Your task to perform on an android device: set the timer Image 0: 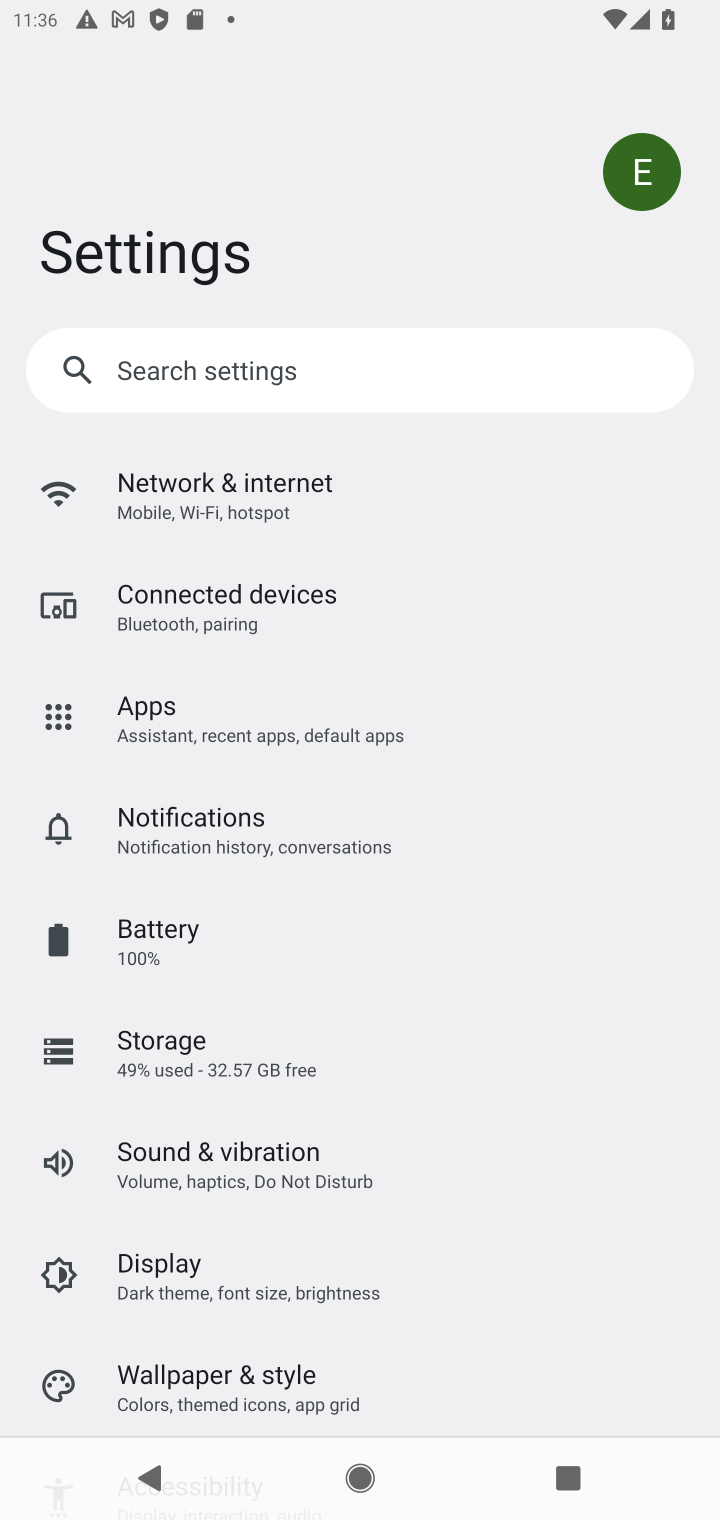
Step 0: press home button
Your task to perform on an android device: set the timer Image 1: 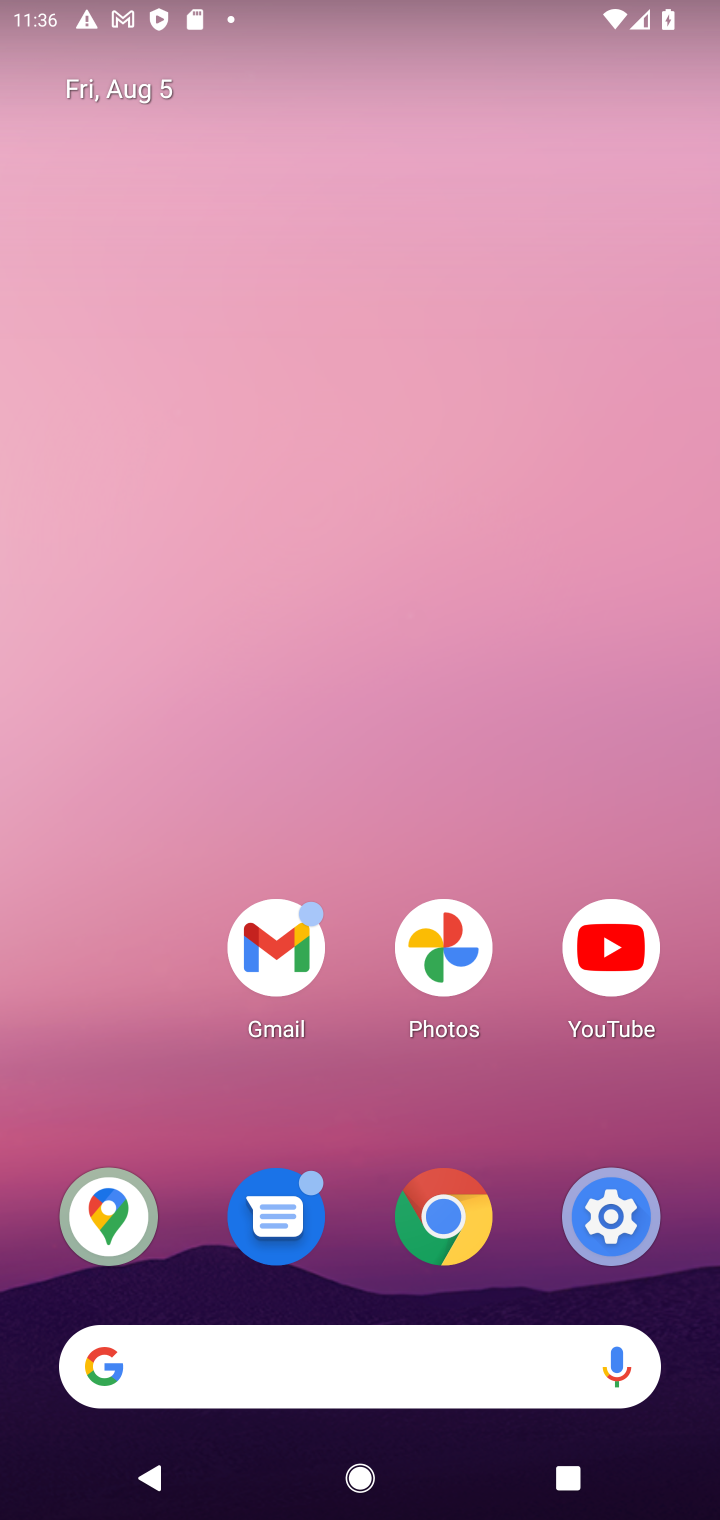
Step 1: drag from (487, 1284) to (586, 49)
Your task to perform on an android device: set the timer Image 2: 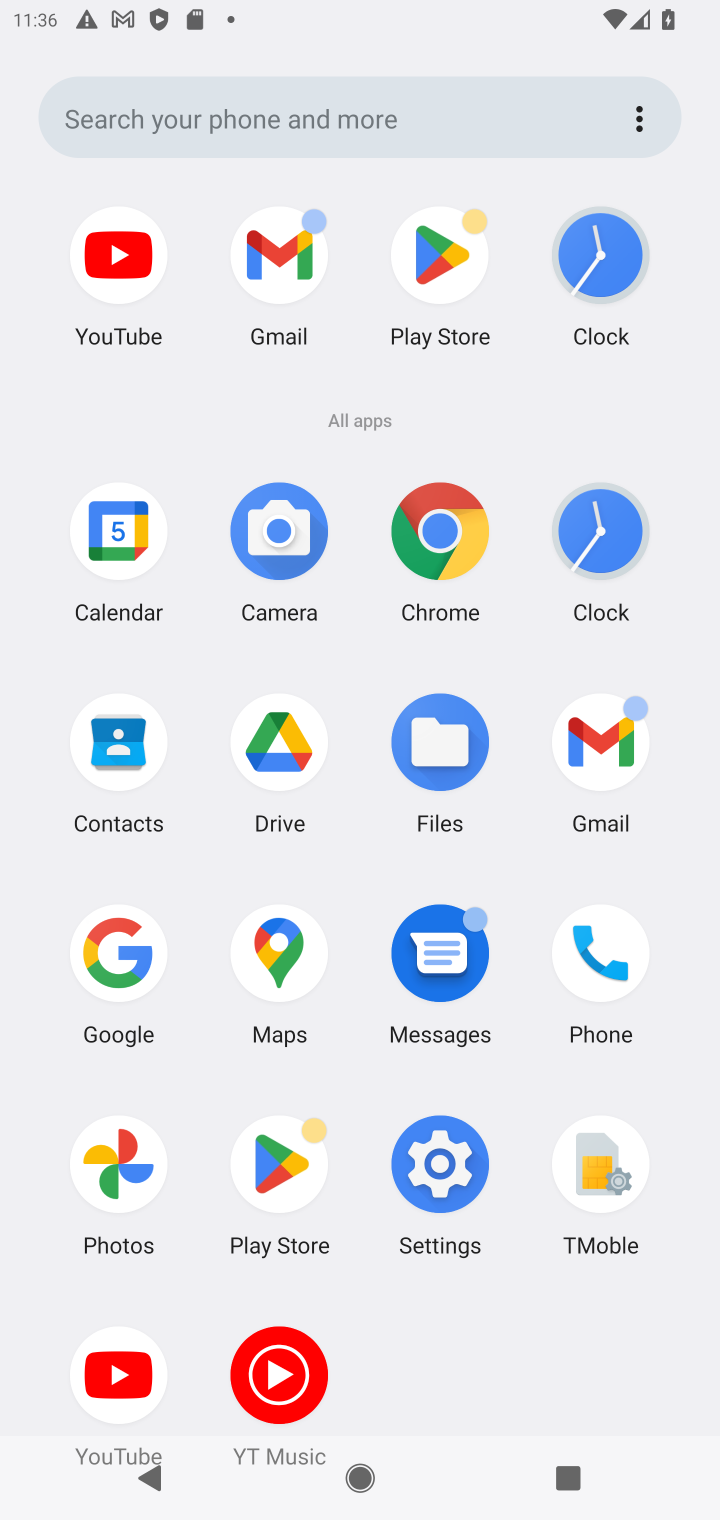
Step 2: click (618, 520)
Your task to perform on an android device: set the timer Image 3: 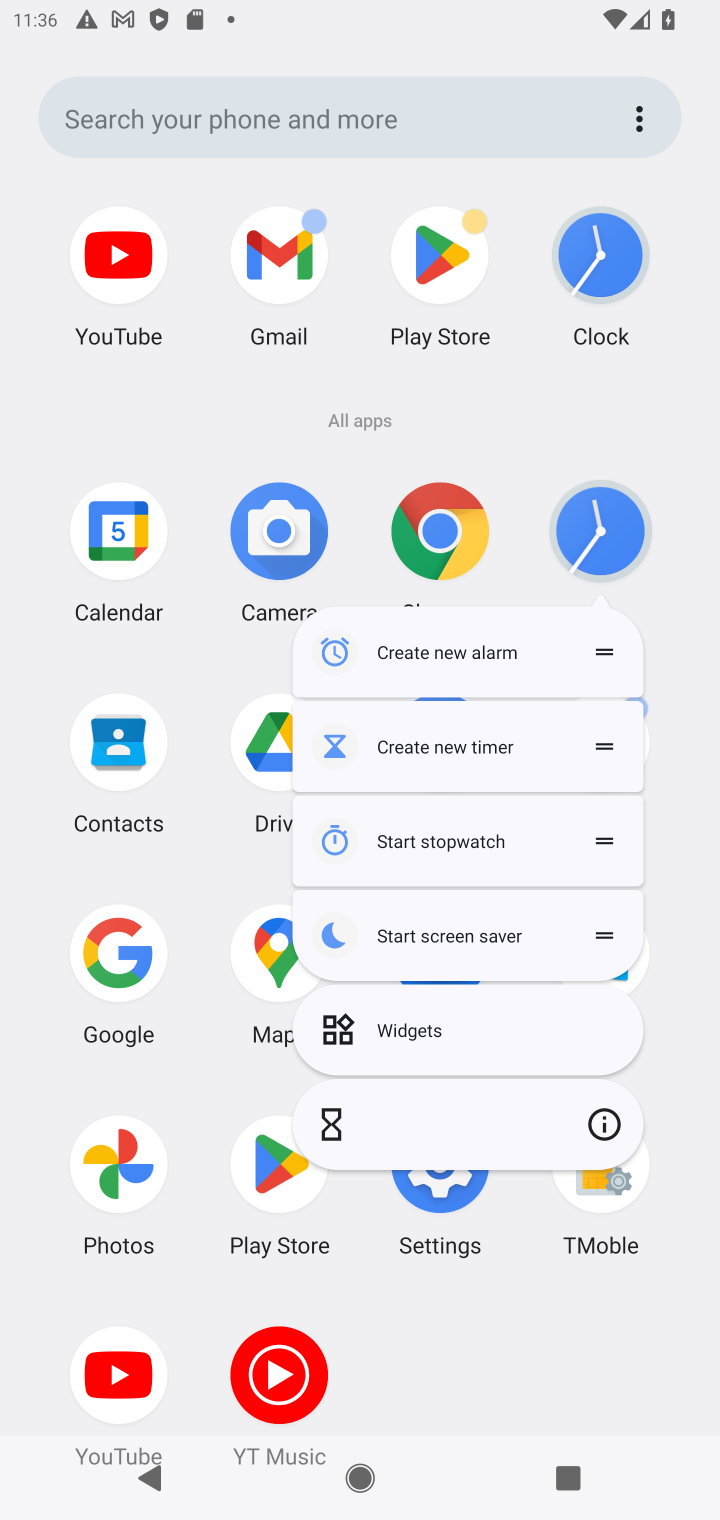
Step 3: click (618, 520)
Your task to perform on an android device: set the timer Image 4: 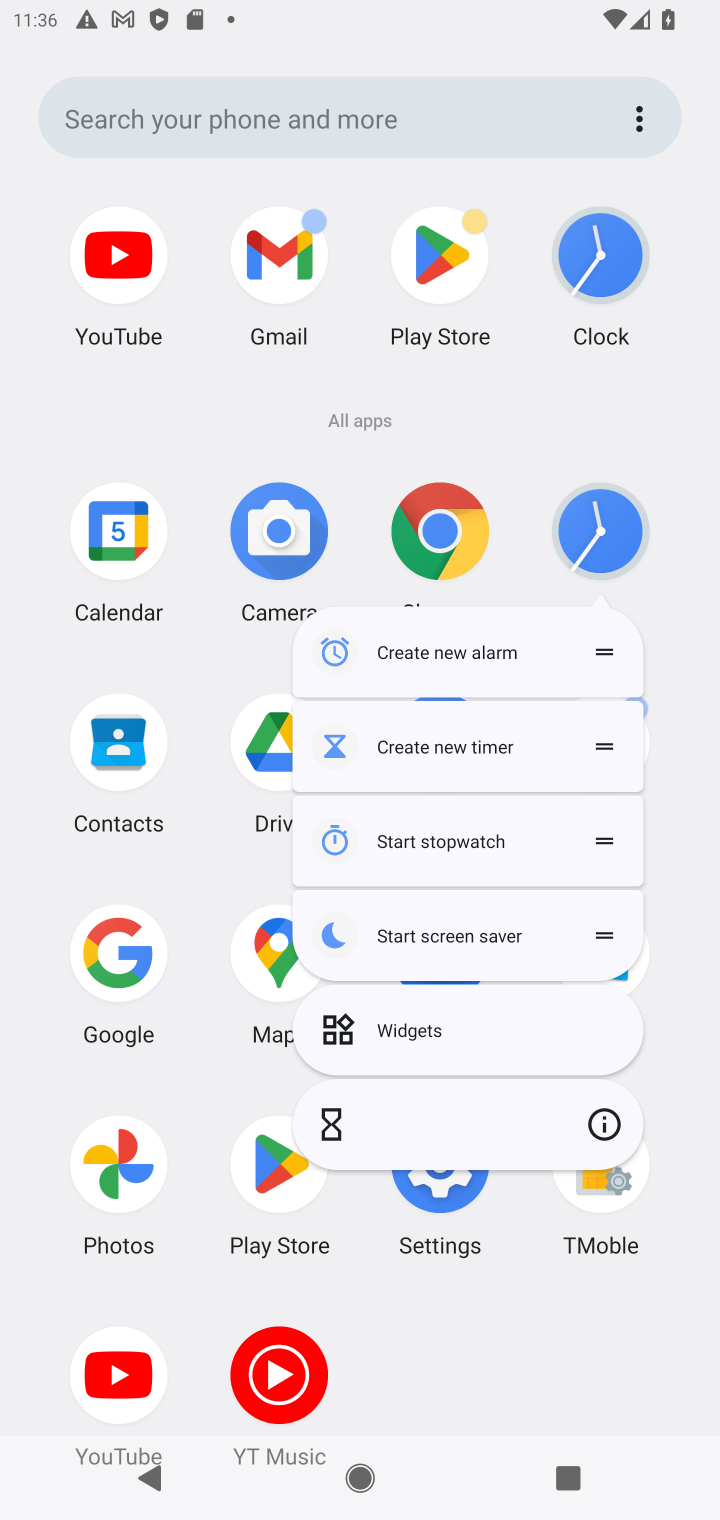
Step 4: click (618, 520)
Your task to perform on an android device: set the timer Image 5: 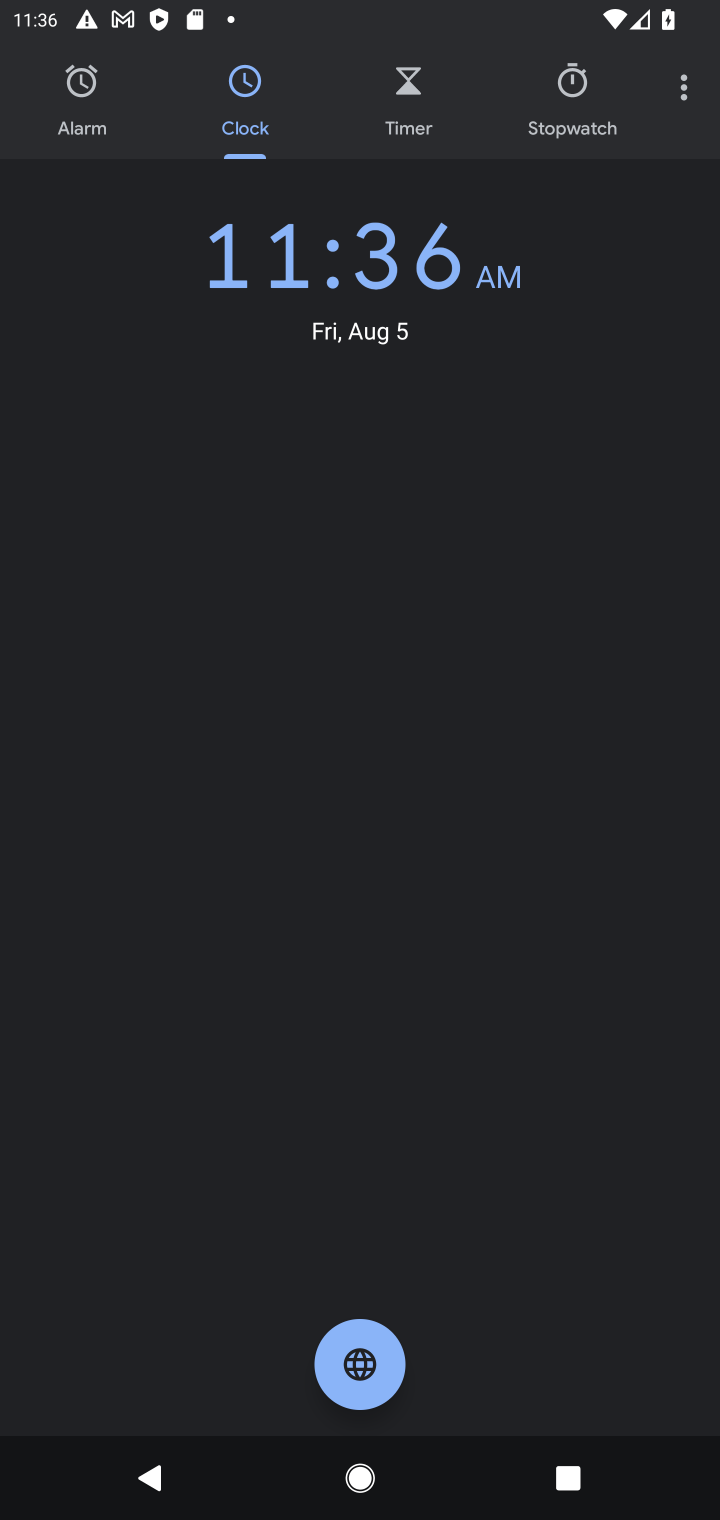
Step 5: click (420, 90)
Your task to perform on an android device: set the timer Image 6: 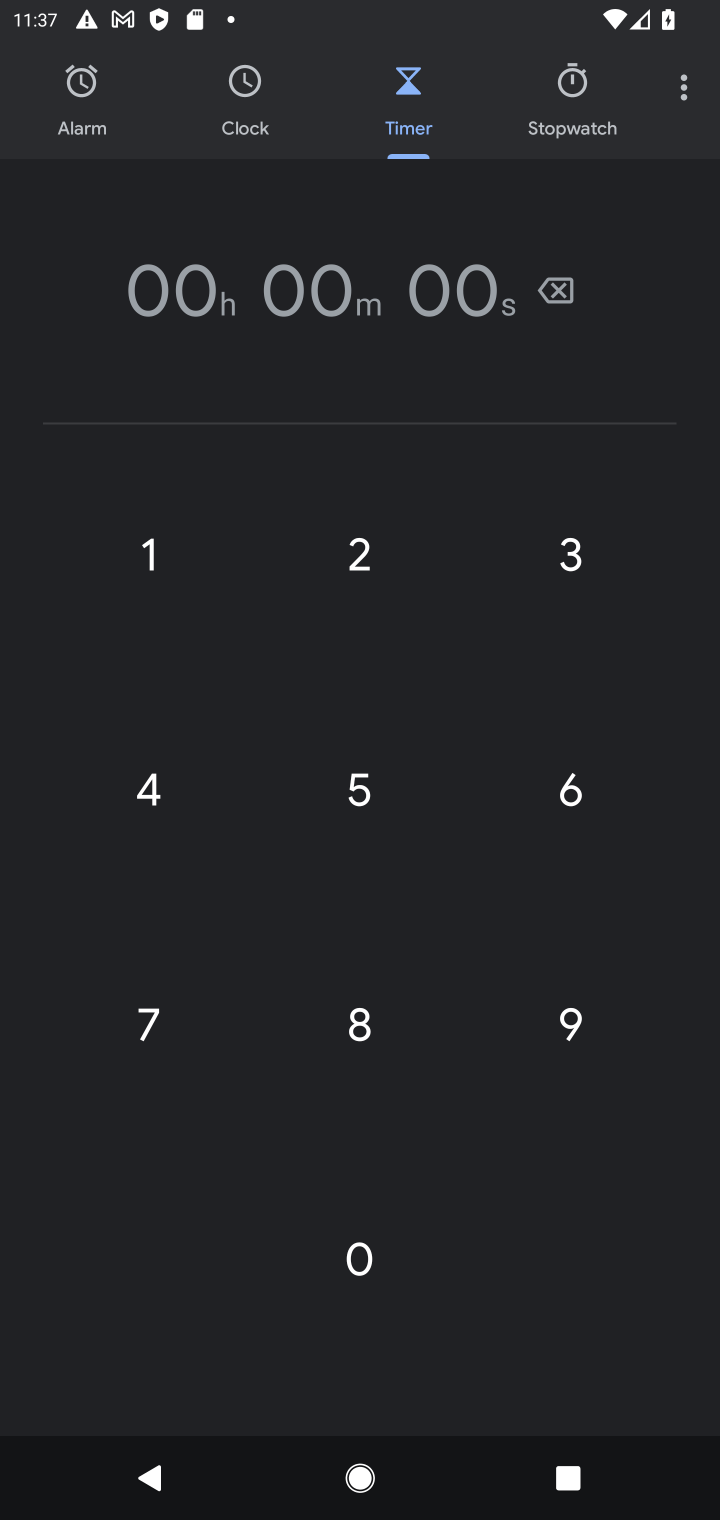
Step 6: click (395, 570)
Your task to perform on an android device: set the timer Image 7: 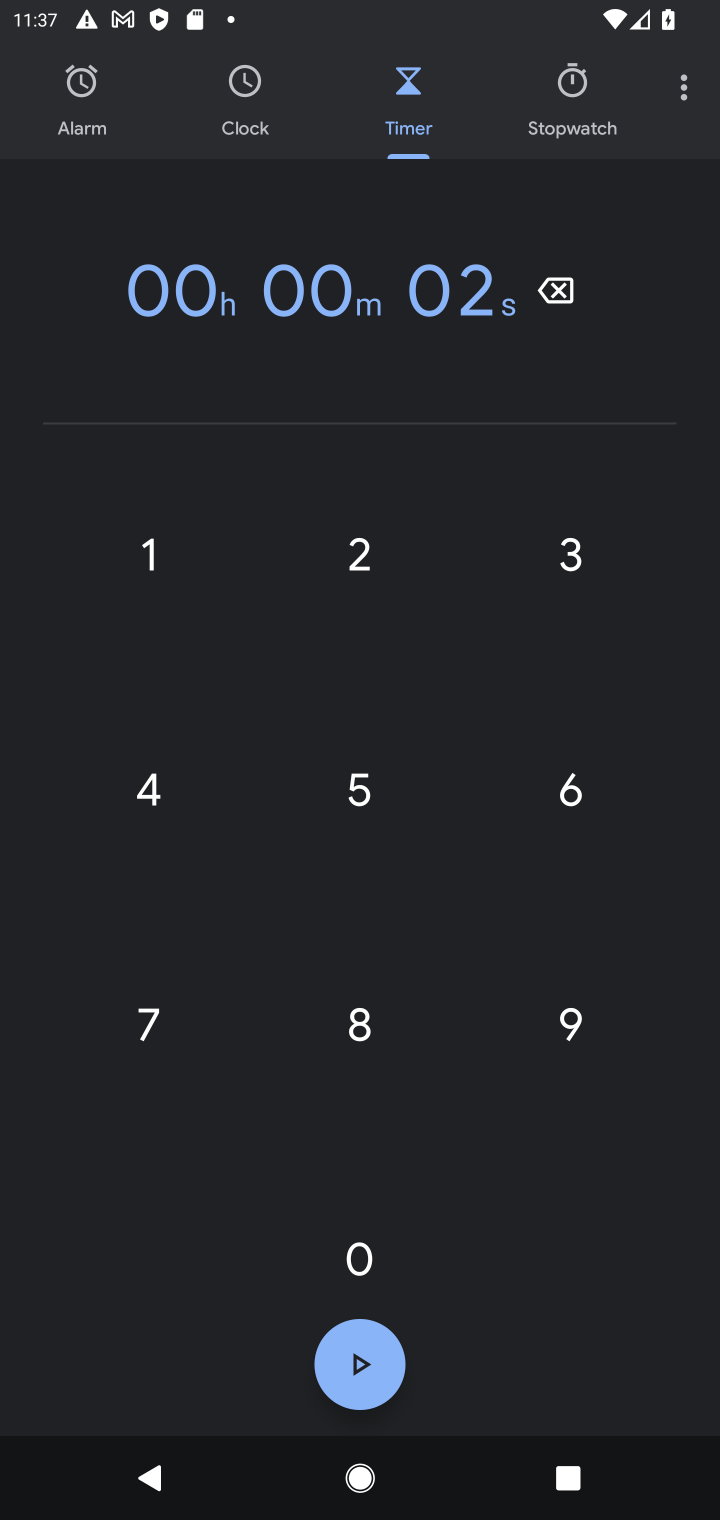
Step 7: click (326, 855)
Your task to perform on an android device: set the timer Image 8: 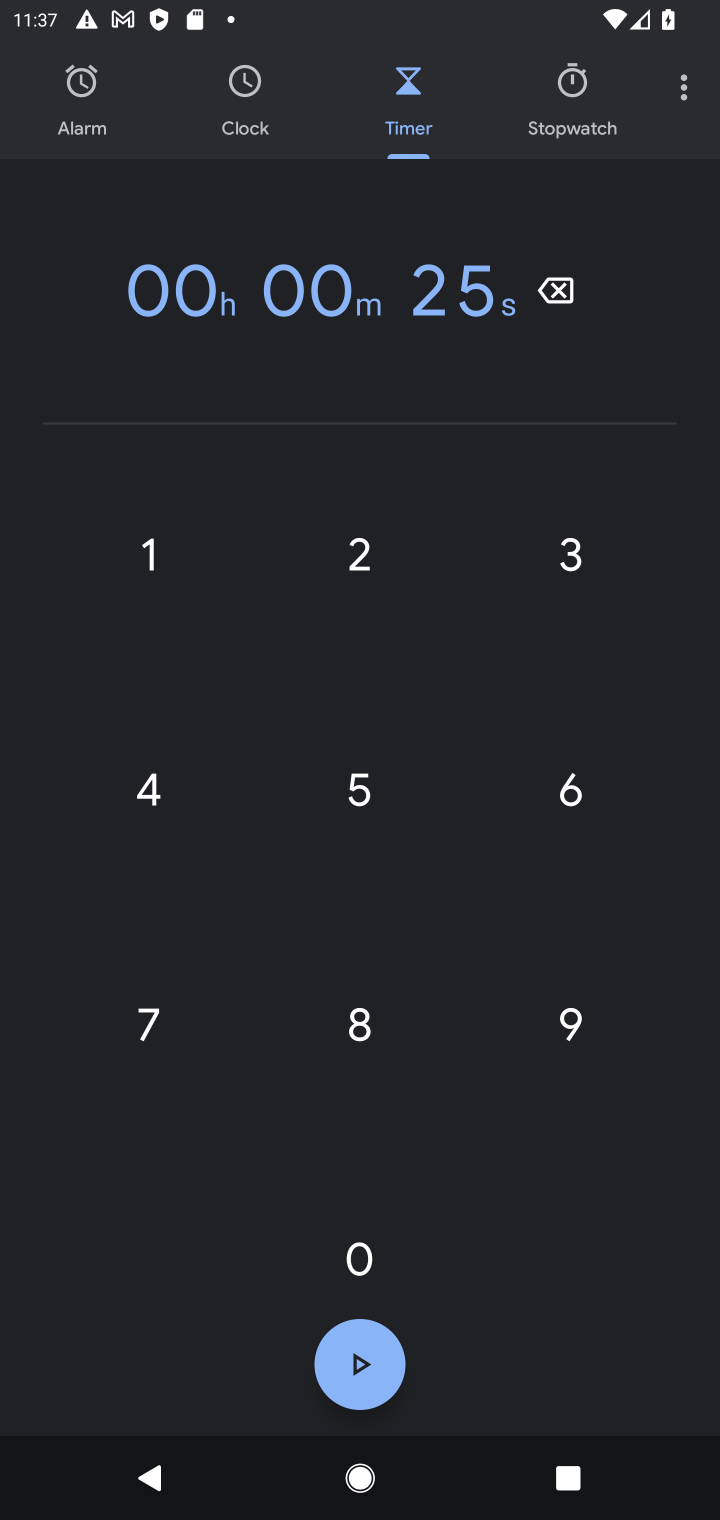
Step 8: click (206, 1071)
Your task to perform on an android device: set the timer Image 9: 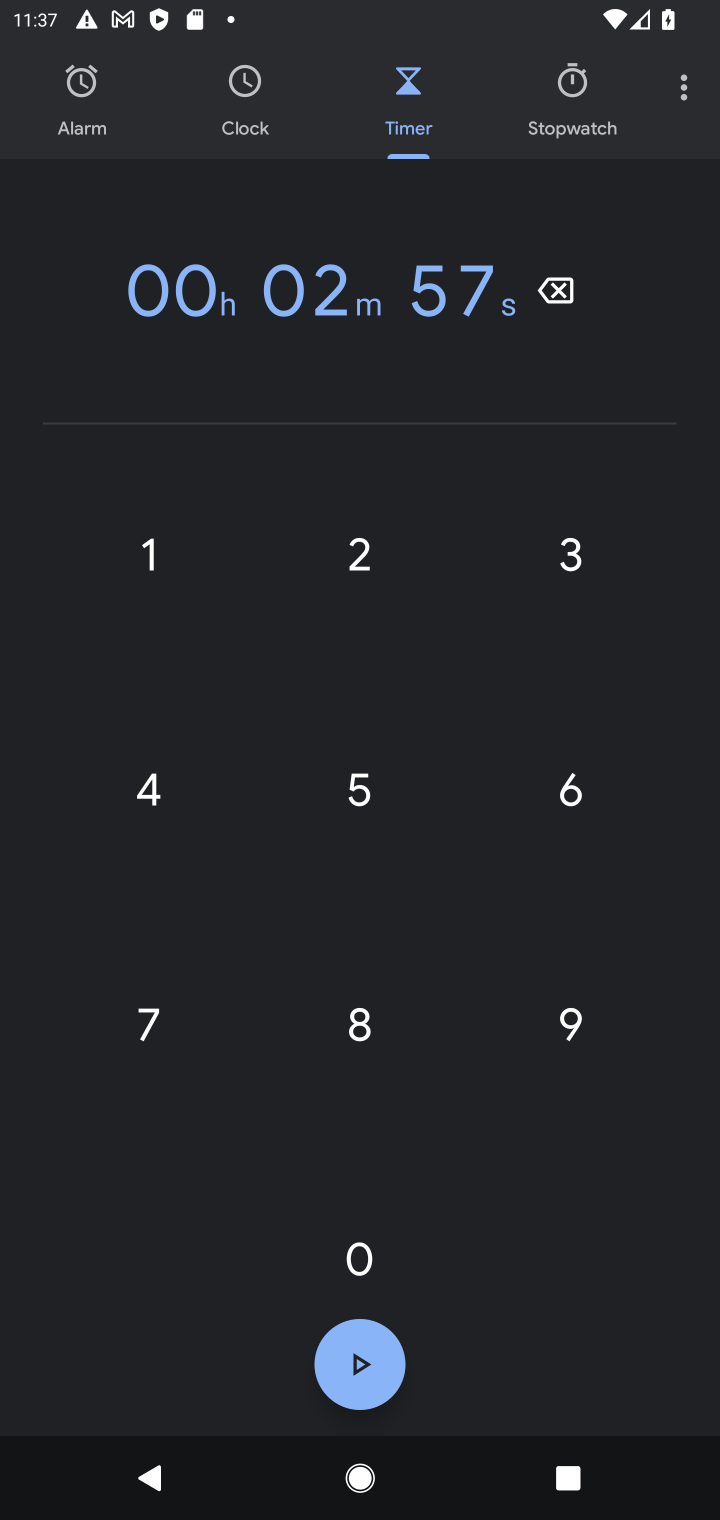
Step 9: task complete